Your task to perform on an android device: open sync settings in chrome Image 0: 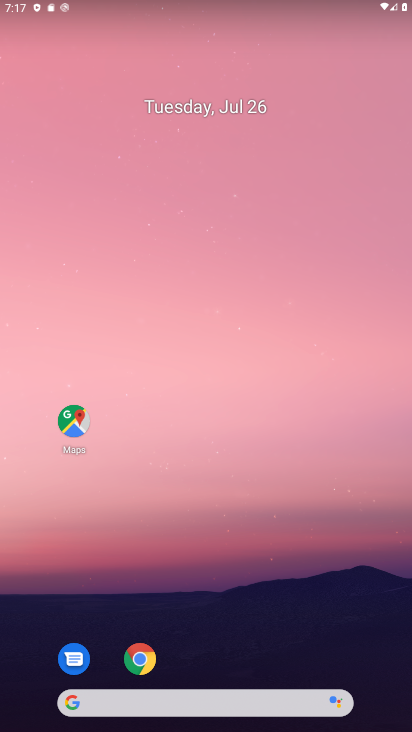
Step 0: click (138, 666)
Your task to perform on an android device: open sync settings in chrome Image 1: 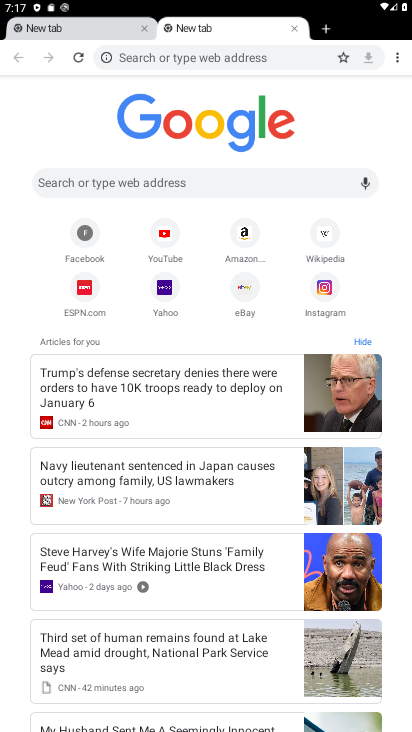
Step 1: click (393, 61)
Your task to perform on an android device: open sync settings in chrome Image 2: 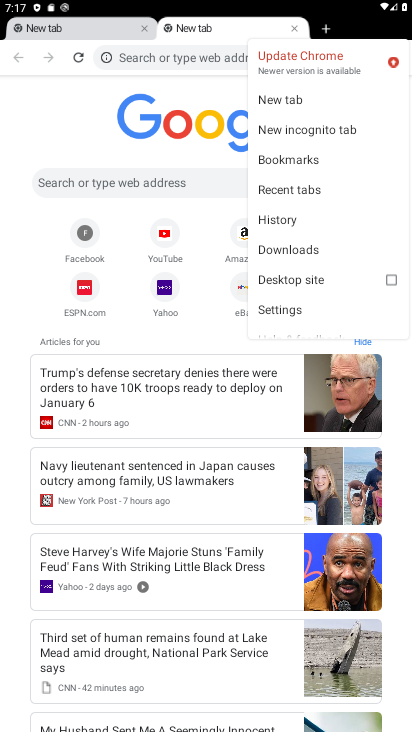
Step 2: click (279, 307)
Your task to perform on an android device: open sync settings in chrome Image 3: 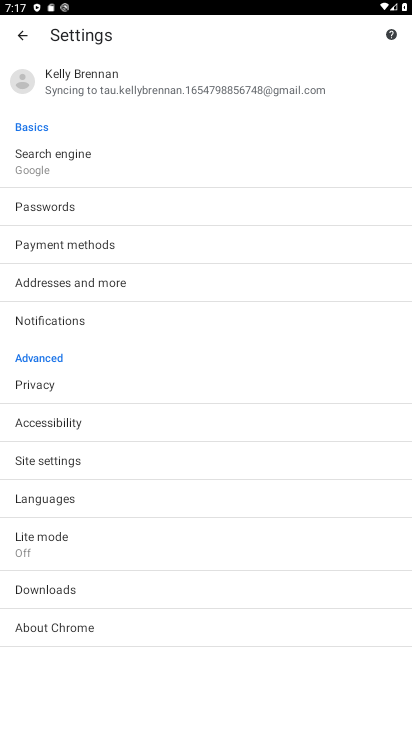
Step 3: click (81, 91)
Your task to perform on an android device: open sync settings in chrome Image 4: 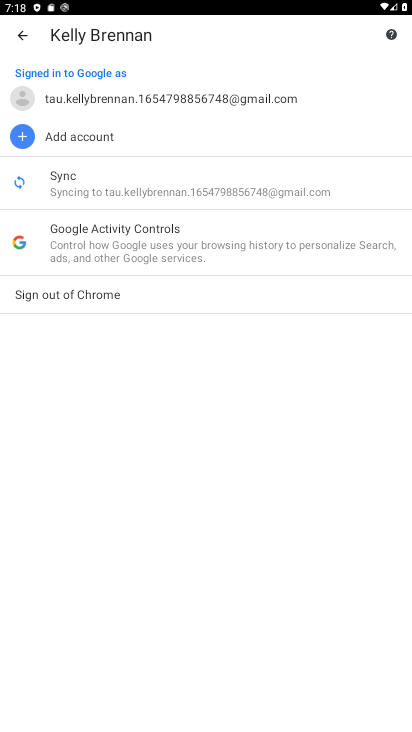
Step 4: click (65, 169)
Your task to perform on an android device: open sync settings in chrome Image 5: 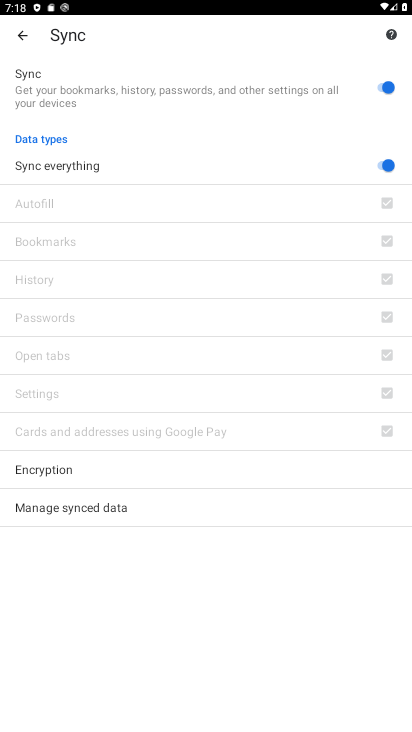
Step 5: task complete